Your task to perform on an android device: Open Yahoo.com Image 0: 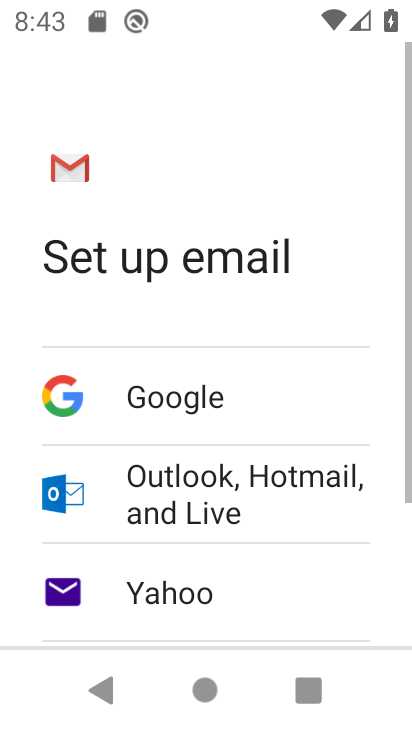
Step 0: press home button
Your task to perform on an android device: Open Yahoo.com Image 1: 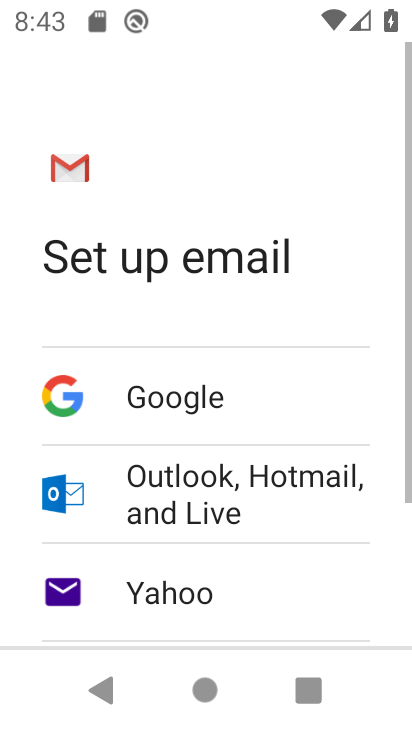
Step 1: press home button
Your task to perform on an android device: Open Yahoo.com Image 2: 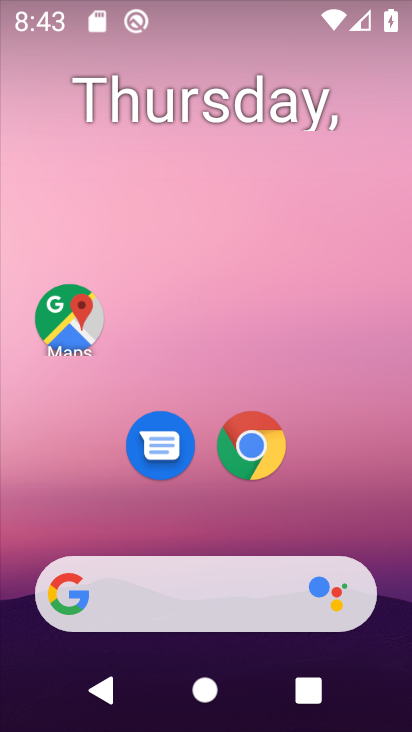
Step 2: click (232, 465)
Your task to perform on an android device: Open Yahoo.com Image 3: 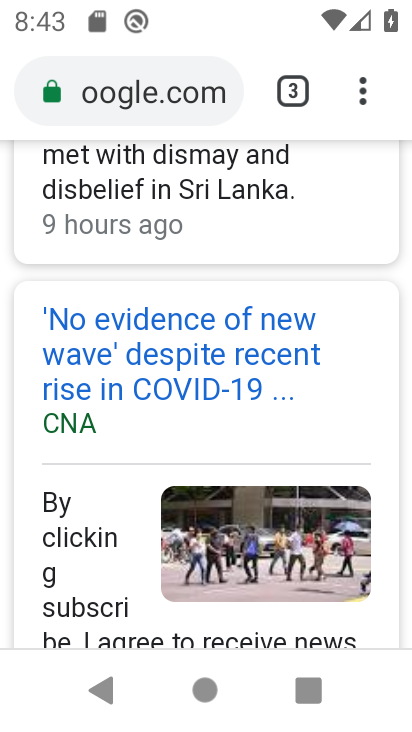
Step 3: click (284, 91)
Your task to perform on an android device: Open Yahoo.com Image 4: 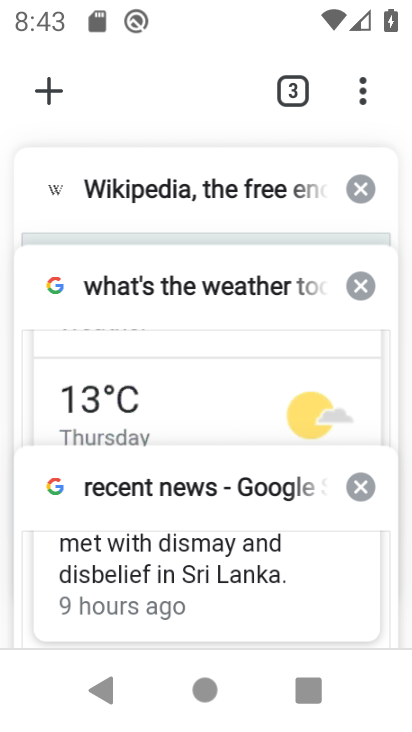
Step 4: click (49, 93)
Your task to perform on an android device: Open Yahoo.com Image 5: 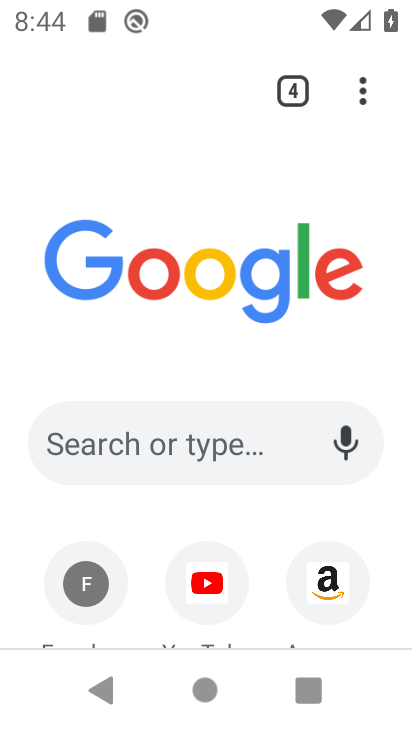
Step 5: drag from (159, 467) to (164, 170)
Your task to perform on an android device: Open Yahoo.com Image 6: 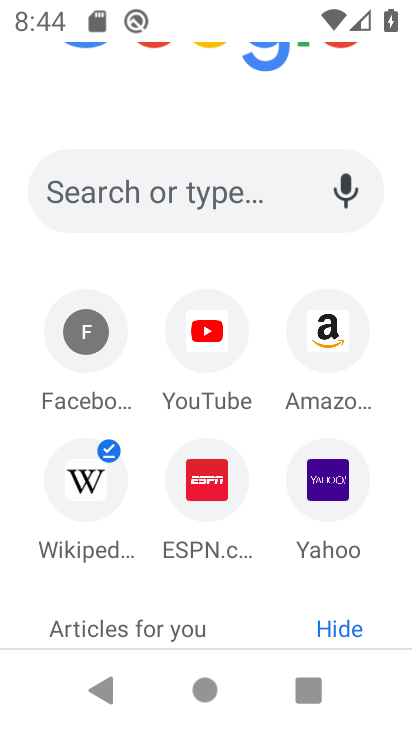
Step 6: click (337, 470)
Your task to perform on an android device: Open Yahoo.com Image 7: 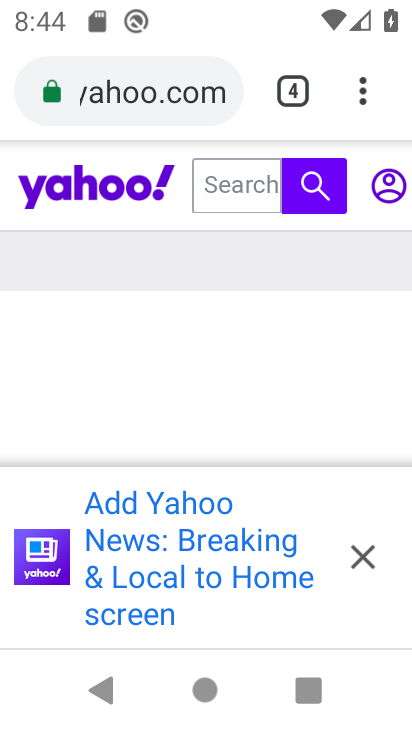
Step 7: click (359, 562)
Your task to perform on an android device: Open Yahoo.com Image 8: 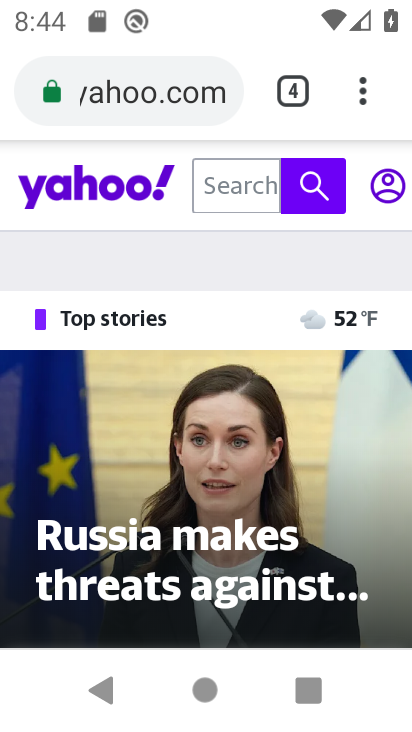
Step 8: task complete